Your task to perform on an android device: open a bookmark in the chrome app Image 0: 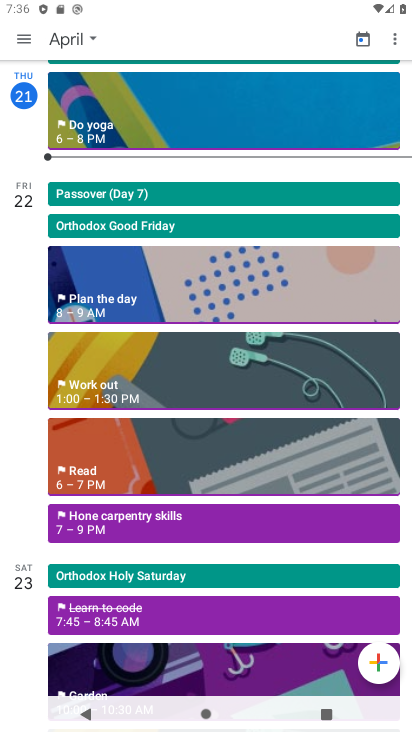
Step 0: press home button
Your task to perform on an android device: open a bookmark in the chrome app Image 1: 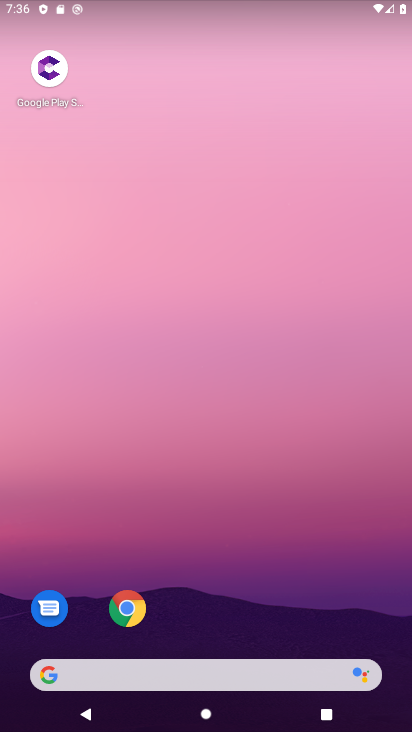
Step 1: click (132, 603)
Your task to perform on an android device: open a bookmark in the chrome app Image 2: 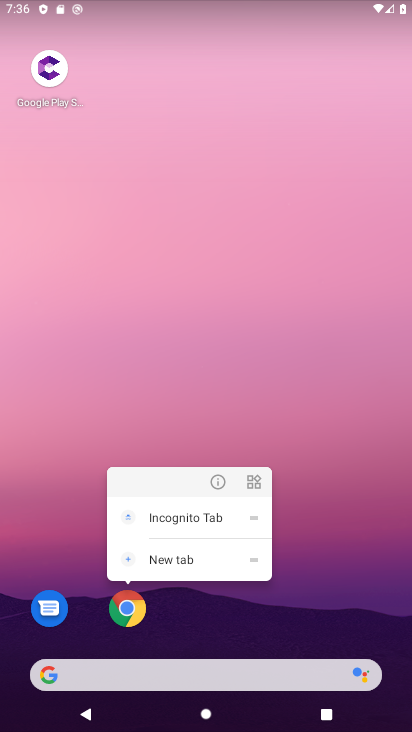
Step 2: click (132, 603)
Your task to perform on an android device: open a bookmark in the chrome app Image 3: 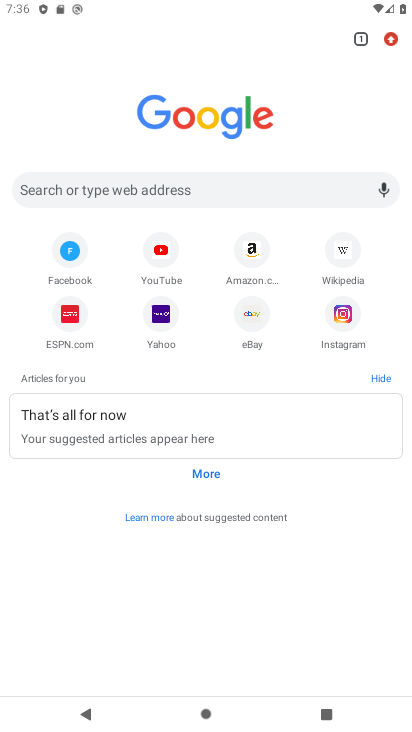
Step 3: click (391, 35)
Your task to perform on an android device: open a bookmark in the chrome app Image 4: 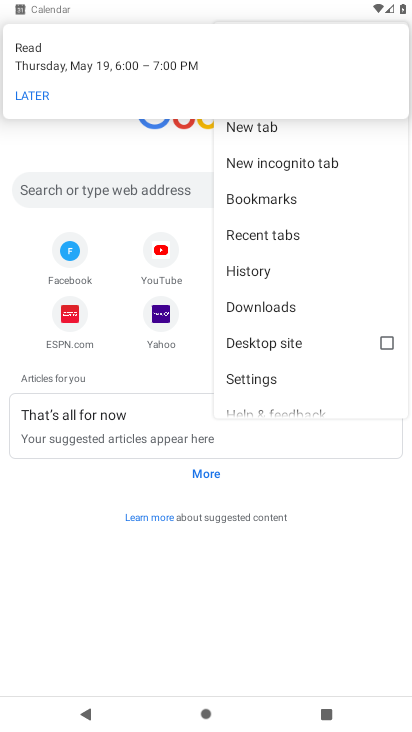
Step 4: click (304, 202)
Your task to perform on an android device: open a bookmark in the chrome app Image 5: 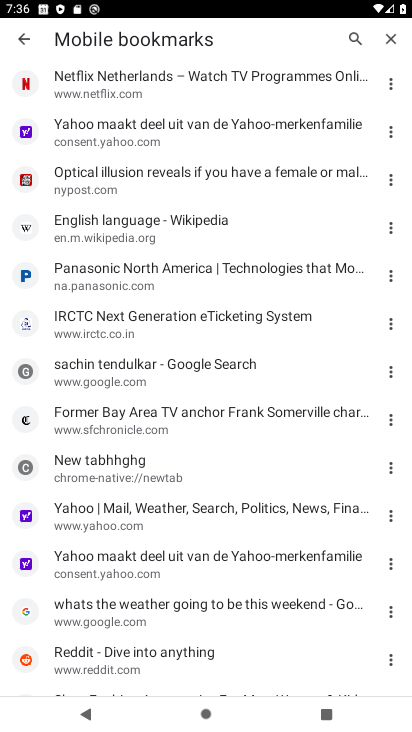
Step 5: click (297, 270)
Your task to perform on an android device: open a bookmark in the chrome app Image 6: 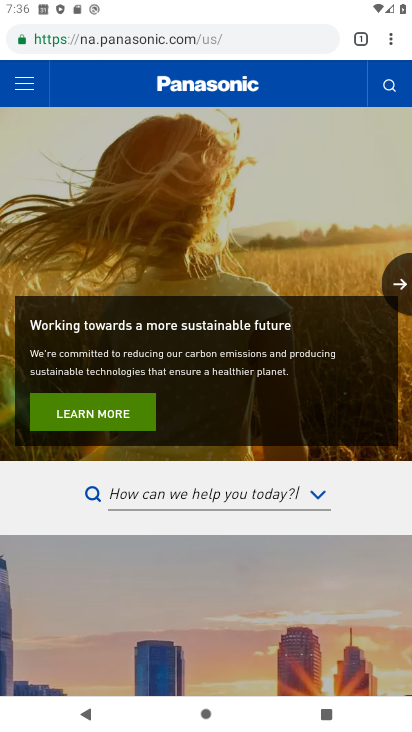
Step 6: task complete